Your task to perform on an android device: What is the recent news? Image 0: 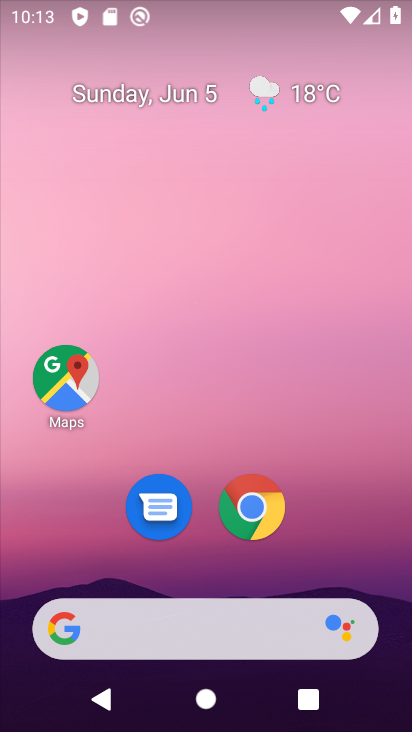
Step 0: click (249, 618)
Your task to perform on an android device: What is the recent news? Image 1: 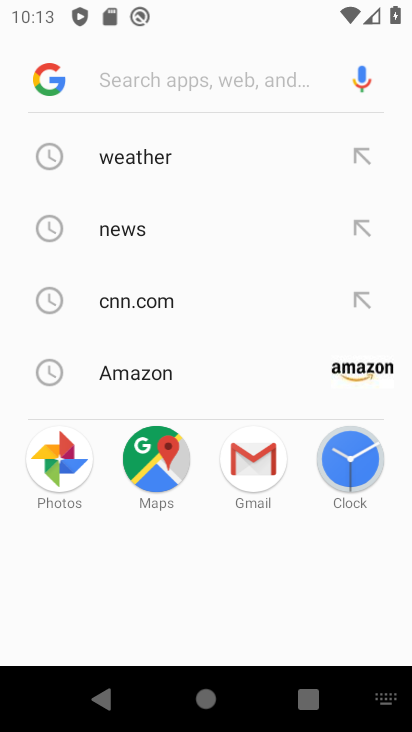
Step 1: type "recent news"
Your task to perform on an android device: What is the recent news? Image 2: 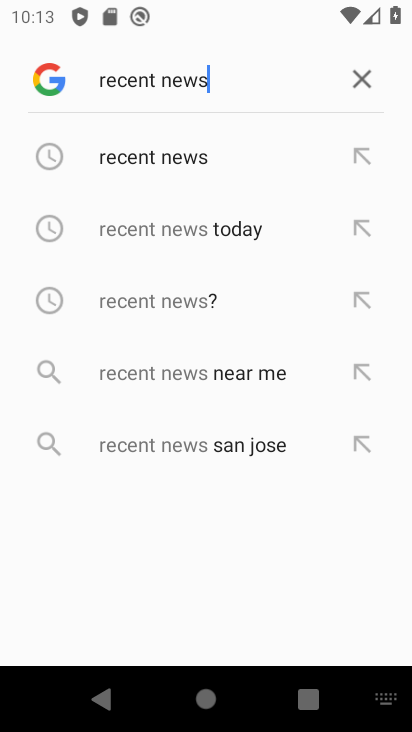
Step 2: click (208, 170)
Your task to perform on an android device: What is the recent news? Image 3: 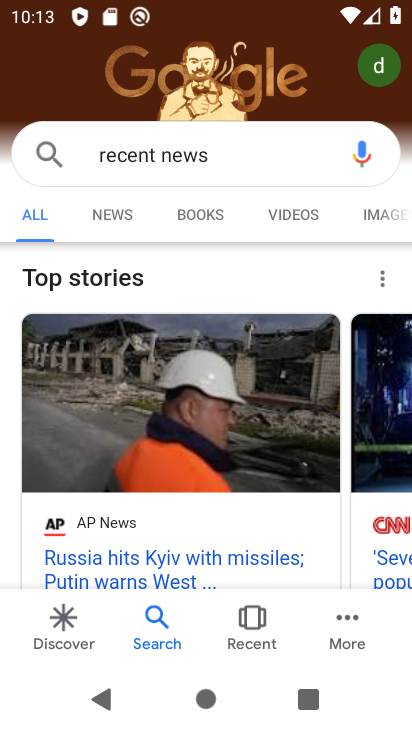
Step 3: task complete